Your task to perform on an android device: open app "TextNow: Call + Text Unlimited" (install if not already installed) and enter user name: "stoke@yahoo.com" and password: "prompted" Image 0: 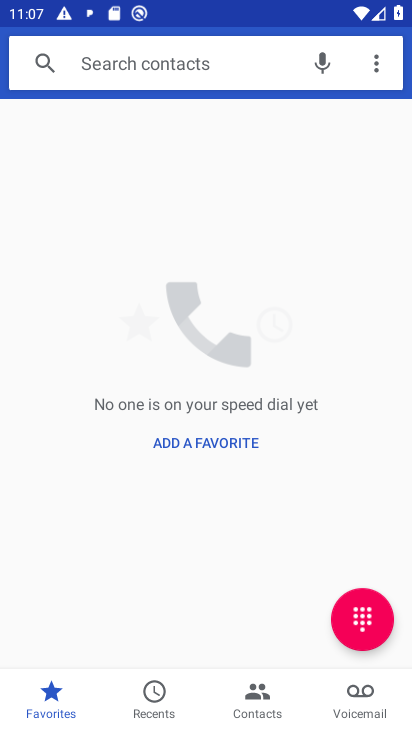
Step 0: press home button
Your task to perform on an android device: open app "TextNow: Call + Text Unlimited" (install if not already installed) and enter user name: "stoke@yahoo.com" and password: "prompted" Image 1: 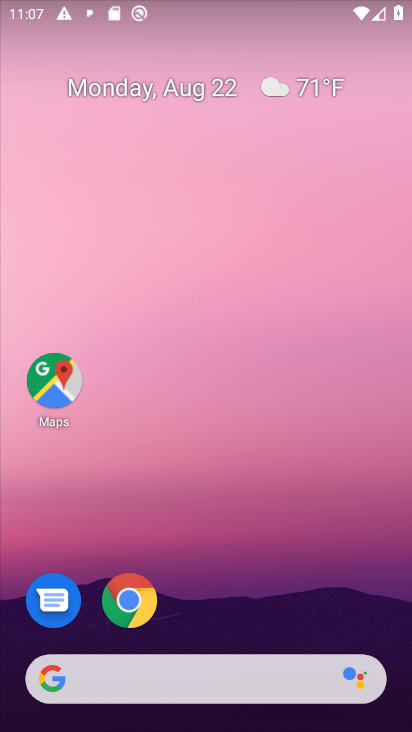
Step 1: drag from (214, 573) to (202, 204)
Your task to perform on an android device: open app "TextNow: Call + Text Unlimited" (install if not already installed) and enter user name: "stoke@yahoo.com" and password: "prompted" Image 2: 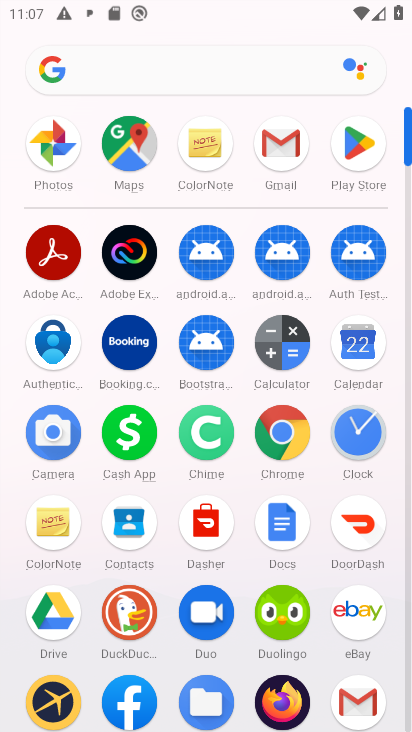
Step 2: click (353, 132)
Your task to perform on an android device: open app "TextNow: Call + Text Unlimited" (install if not already installed) and enter user name: "stoke@yahoo.com" and password: "prompted" Image 3: 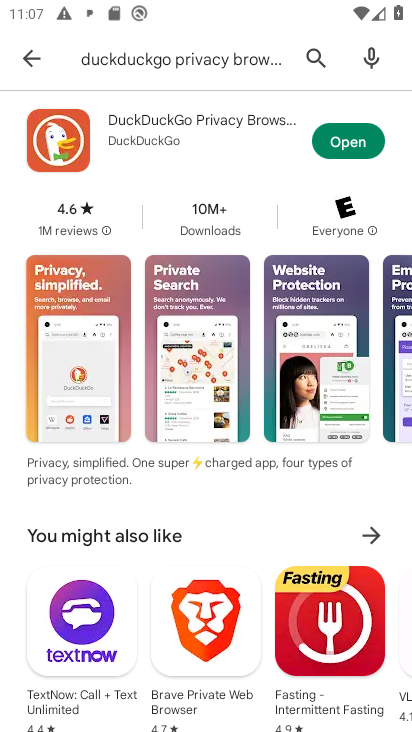
Step 3: click (303, 58)
Your task to perform on an android device: open app "TextNow: Call + Text Unlimited" (install if not already installed) and enter user name: "stoke@yahoo.com" and password: "prompted" Image 4: 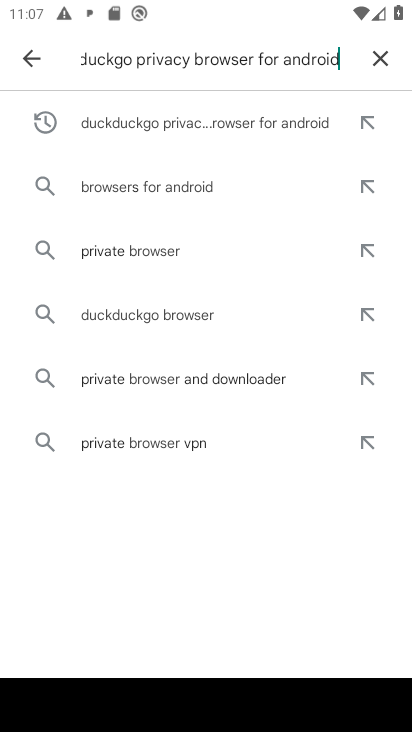
Step 4: click (374, 52)
Your task to perform on an android device: open app "TextNow: Call + Text Unlimited" (install if not already installed) and enter user name: "stoke@yahoo.com" and password: "prompted" Image 5: 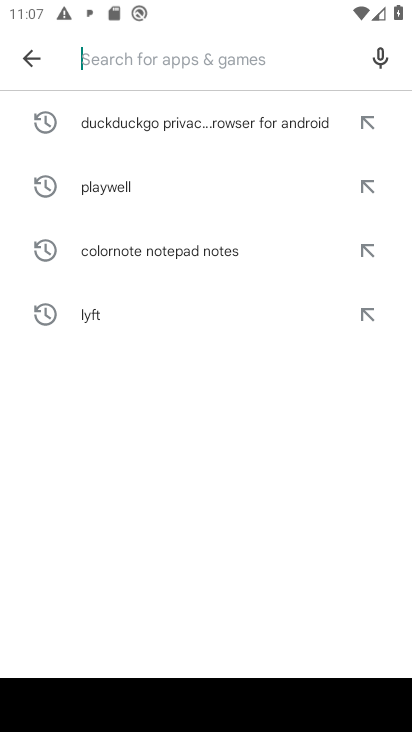
Step 5: type "TextNow: Call + Text Unlimited"
Your task to perform on an android device: open app "TextNow: Call + Text Unlimited" (install if not already installed) and enter user name: "stoke@yahoo.com" and password: "prompted" Image 6: 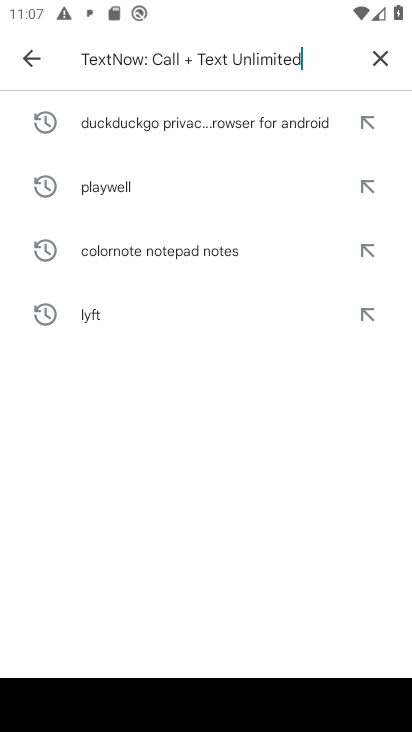
Step 6: type ""
Your task to perform on an android device: open app "TextNow: Call + Text Unlimited" (install if not already installed) and enter user name: "stoke@yahoo.com" and password: "prompted" Image 7: 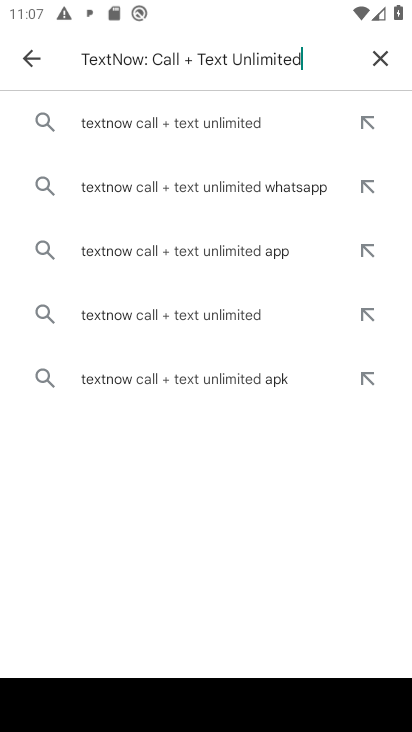
Step 7: click (222, 123)
Your task to perform on an android device: open app "TextNow: Call + Text Unlimited" (install if not already installed) and enter user name: "stoke@yahoo.com" and password: "prompted" Image 8: 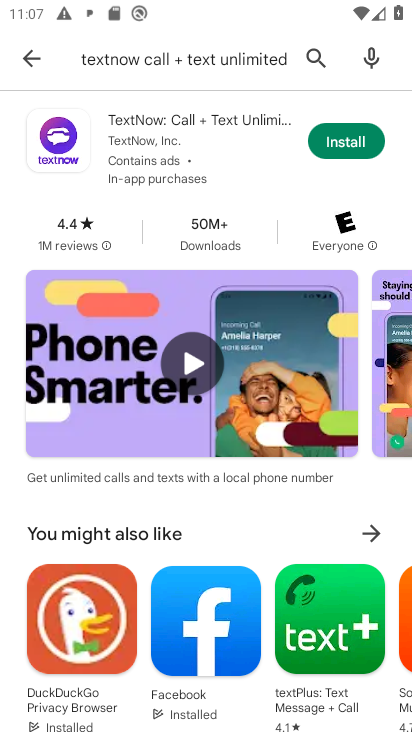
Step 8: click (353, 149)
Your task to perform on an android device: open app "TextNow: Call + Text Unlimited" (install if not already installed) and enter user name: "stoke@yahoo.com" and password: "prompted" Image 9: 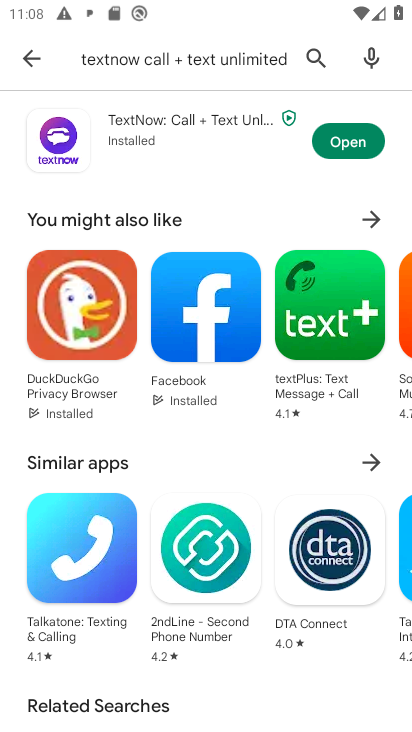
Step 9: click (353, 149)
Your task to perform on an android device: open app "TextNow: Call + Text Unlimited" (install if not already installed) and enter user name: "stoke@yahoo.com" and password: "prompted" Image 10: 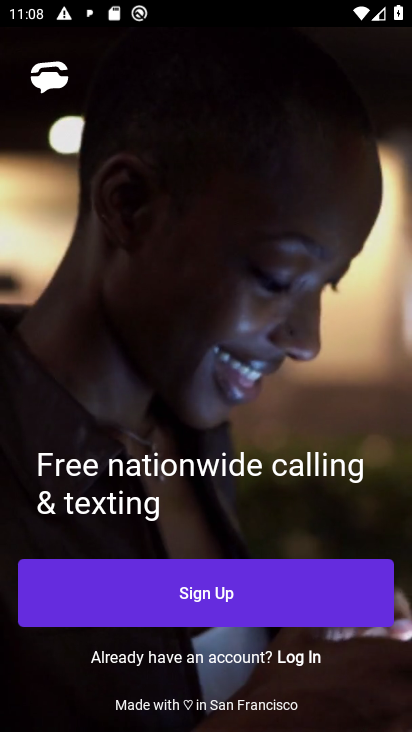
Step 10: task complete